Your task to perform on an android device: add a contact Image 0: 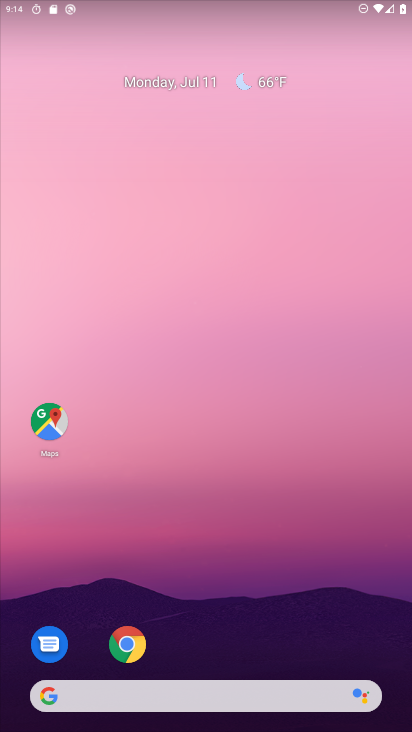
Step 0: drag from (332, 579) to (220, 151)
Your task to perform on an android device: add a contact Image 1: 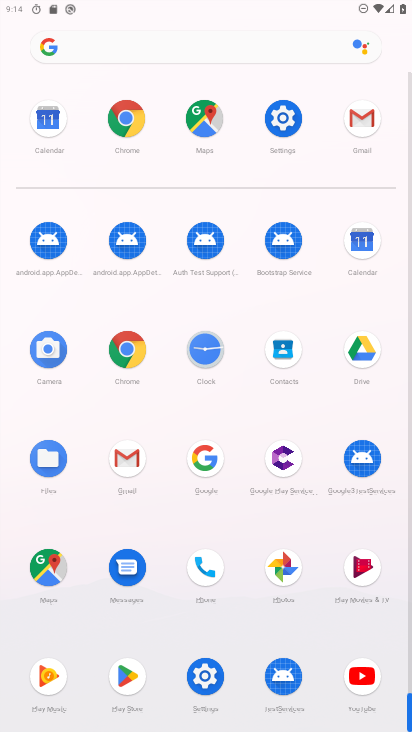
Step 1: click (279, 351)
Your task to perform on an android device: add a contact Image 2: 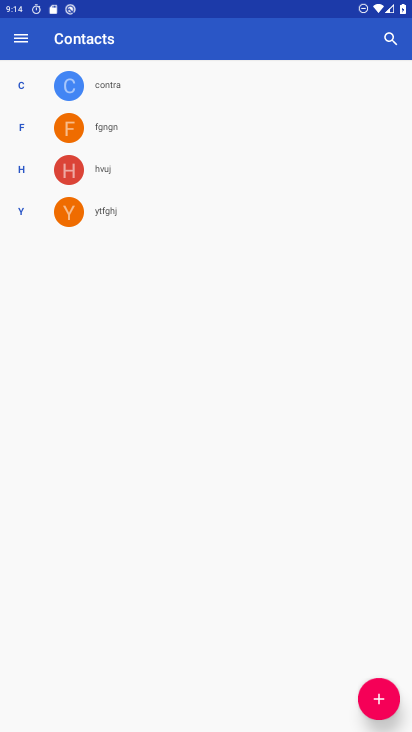
Step 2: click (385, 708)
Your task to perform on an android device: add a contact Image 3: 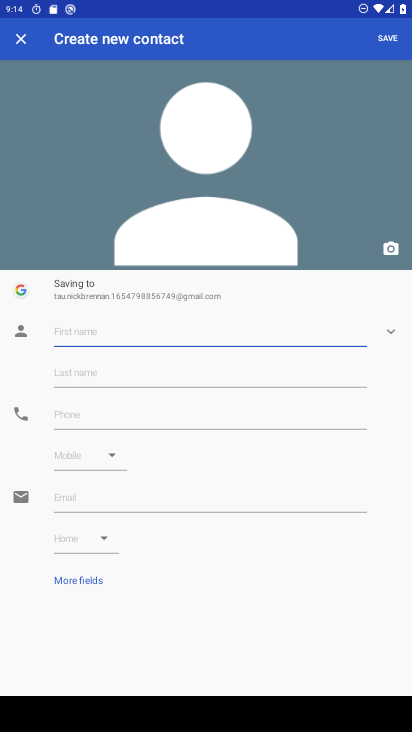
Step 3: type "doremon"
Your task to perform on an android device: add a contact Image 4: 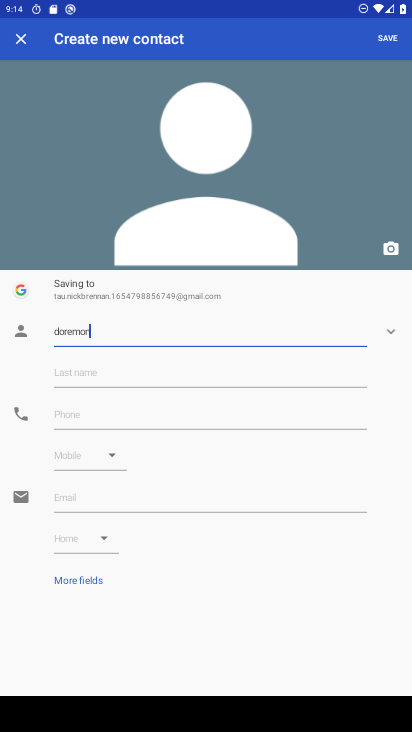
Step 4: click (392, 39)
Your task to perform on an android device: add a contact Image 5: 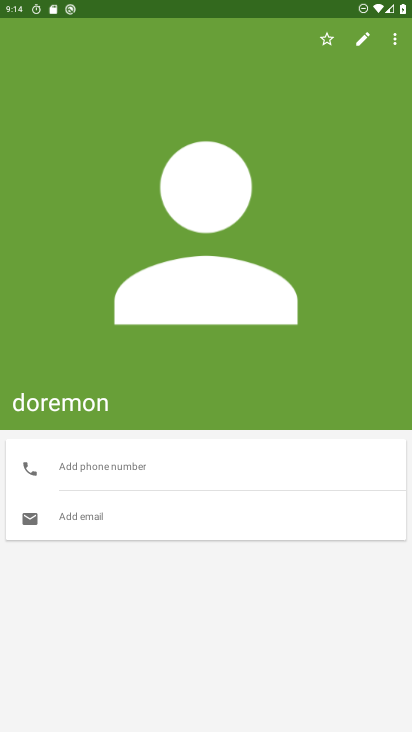
Step 5: task complete